Your task to perform on an android device: Open Yahoo.com Image 0: 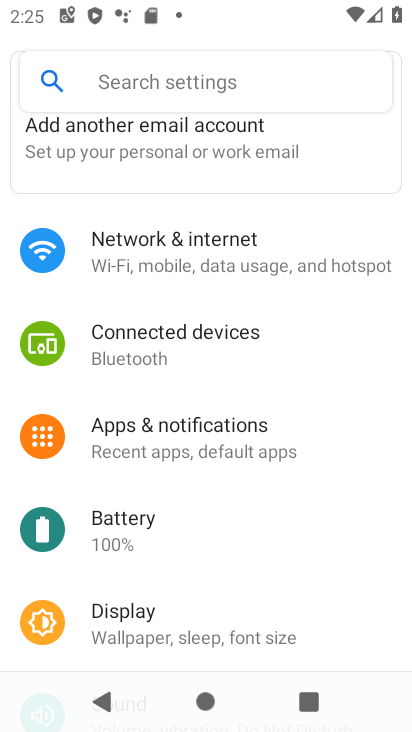
Step 0: press home button
Your task to perform on an android device: Open Yahoo.com Image 1: 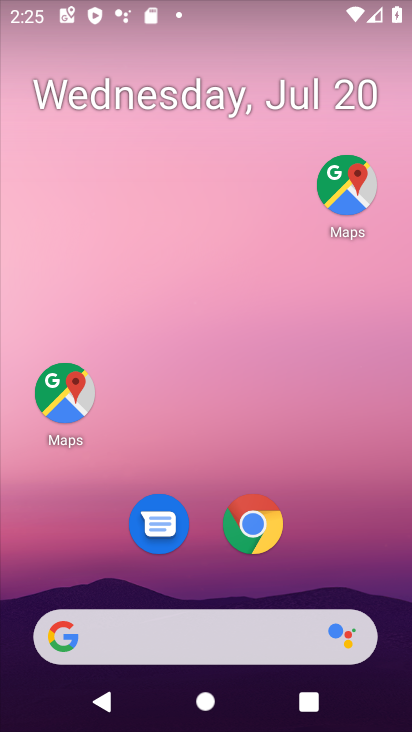
Step 1: click (280, 624)
Your task to perform on an android device: Open Yahoo.com Image 2: 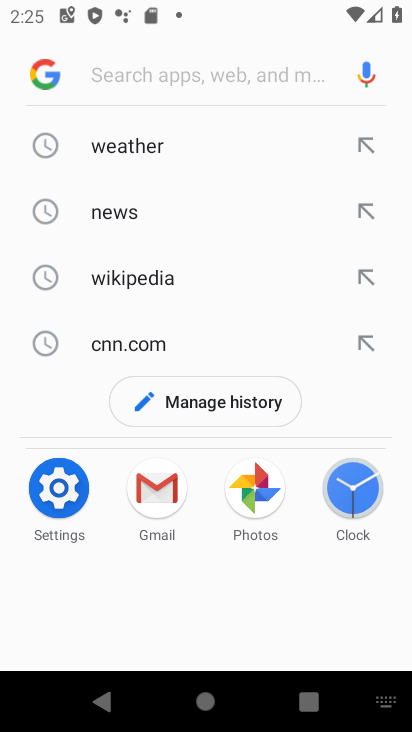
Step 2: type "yahoo.com"
Your task to perform on an android device: Open Yahoo.com Image 3: 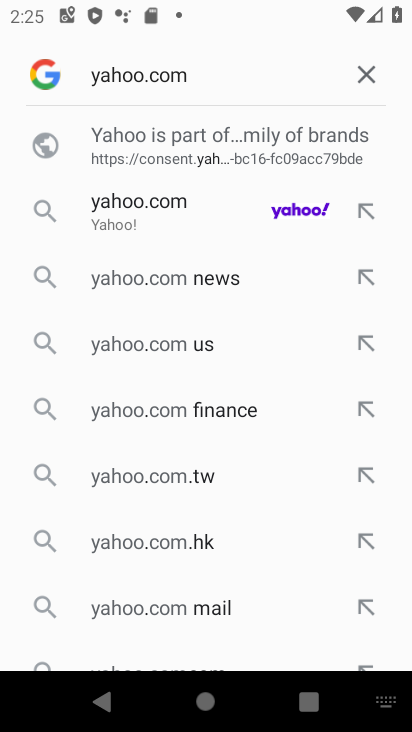
Step 3: click (319, 207)
Your task to perform on an android device: Open Yahoo.com Image 4: 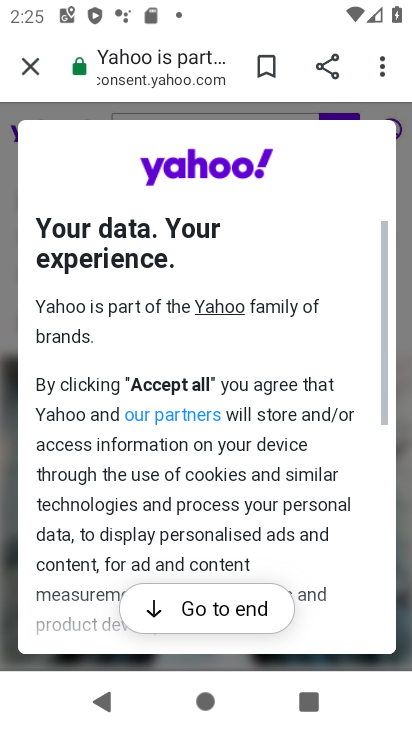
Step 4: click (253, 603)
Your task to perform on an android device: Open Yahoo.com Image 5: 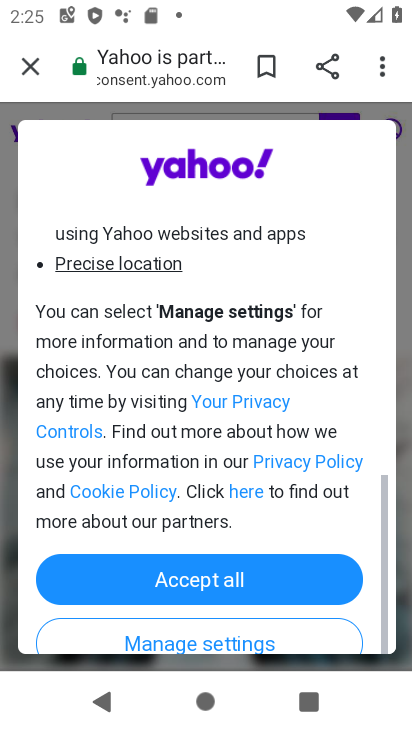
Step 5: click (252, 585)
Your task to perform on an android device: Open Yahoo.com Image 6: 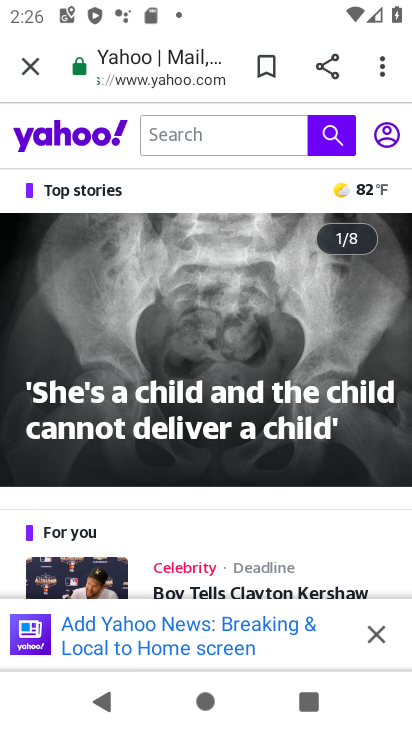
Step 6: task complete